Your task to perform on an android device: turn notification dots off Image 0: 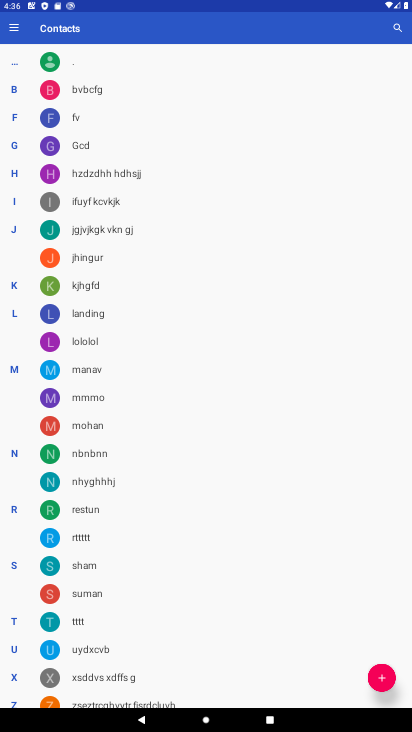
Step 0: press home button
Your task to perform on an android device: turn notification dots off Image 1: 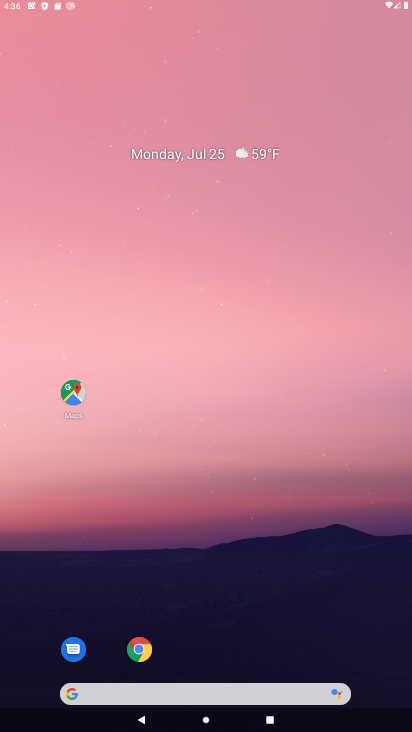
Step 1: drag from (385, 381) to (241, 352)
Your task to perform on an android device: turn notification dots off Image 2: 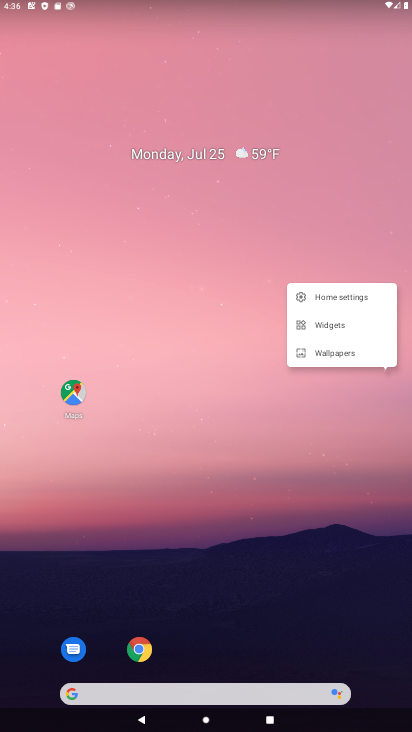
Step 2: click (266, 527)
Your task to perform on an android device: turn notification dots off Image 3: 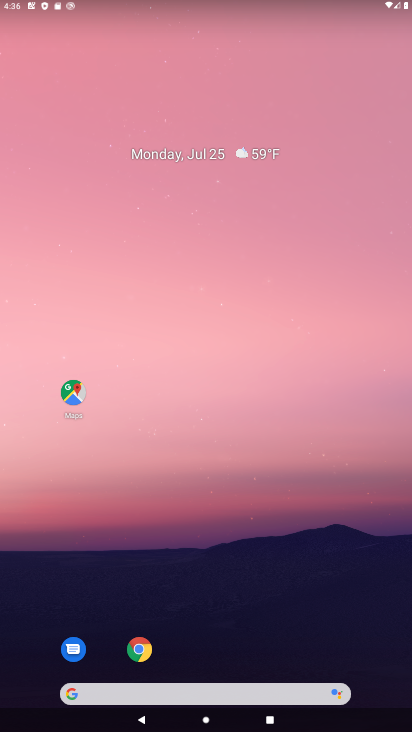
Step 3: drag from (236, 618) to (409, 198)
Your task to perform on an android device: turn notification dots off Image 4: 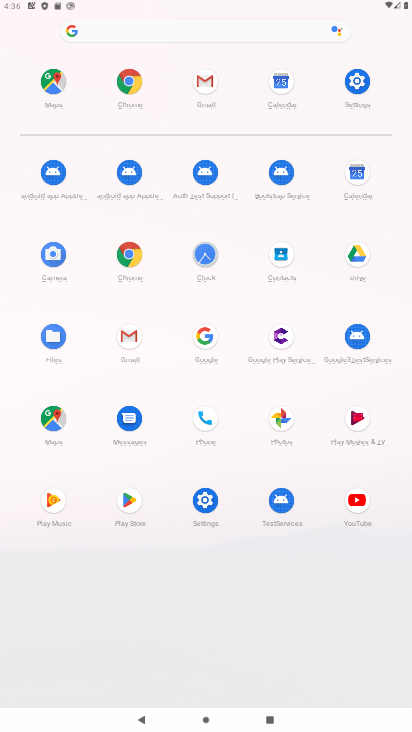
Step 4: click (364, 88)
Your task to perform on an android device: turn notification dots off Image 5: 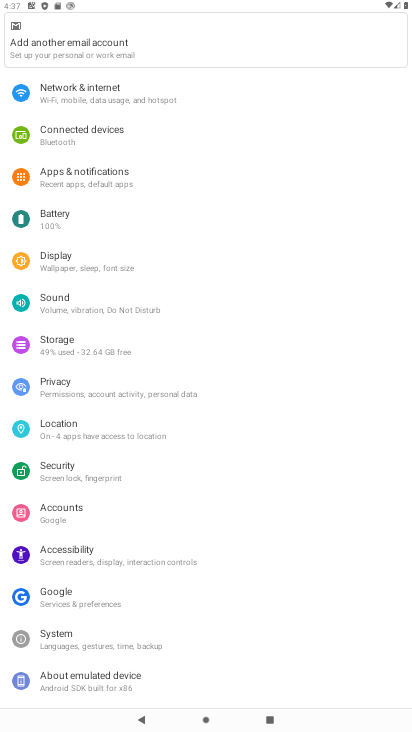
Step 5: click (96, 187)
Your task to perform on an android device: turn notification dots off Image 6: 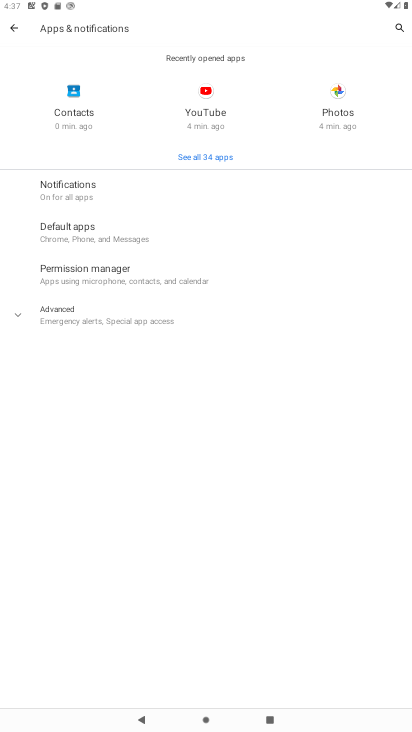
Step 6: click (86, 194)
Your task to perform on an android device: turn notification dots off Image 7: 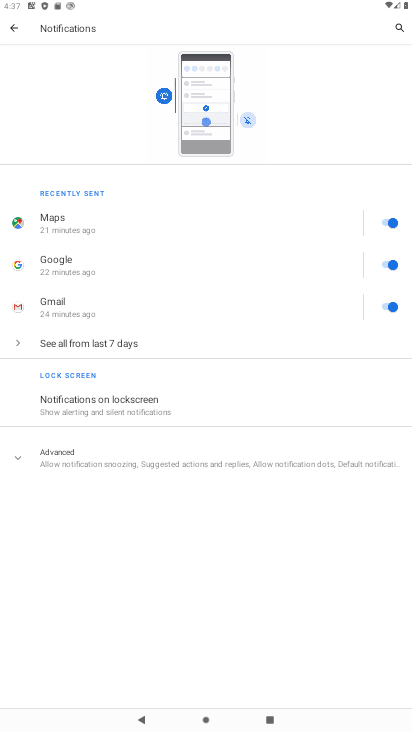
Step 7: click (90, 409)
Your task to perform on an android device: turn notification dots off Image 8: 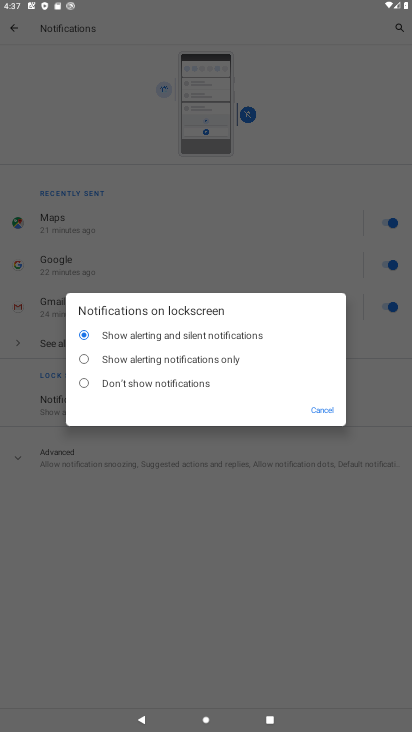
Step 8: click (318, 409)
Your task to perform on an android device: turn notification dots off Image 9: 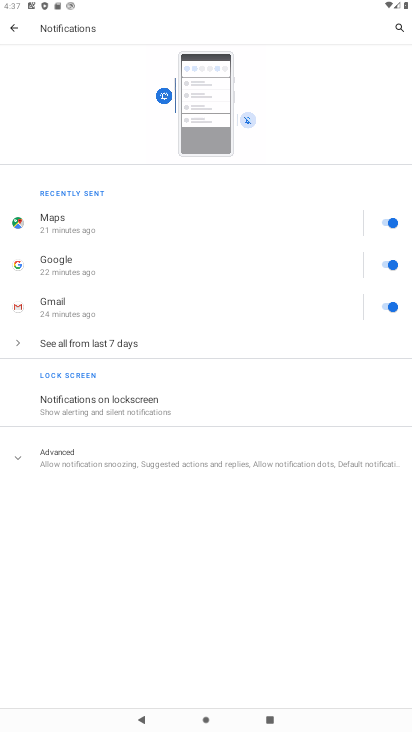
Step 9: click (74, 459)
Your task to perform on an android device: turn notification dots off Image 10: 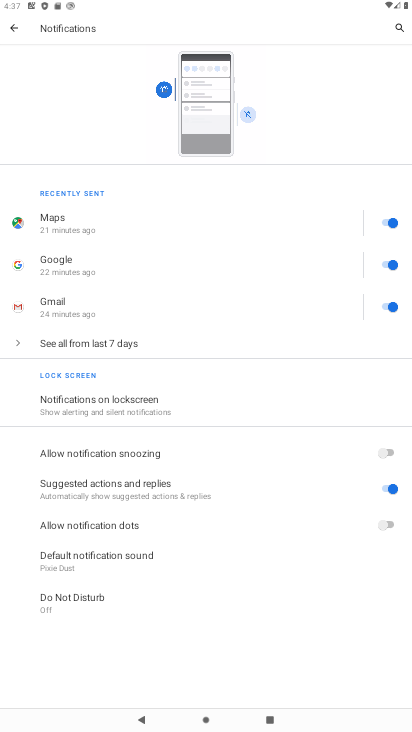
Step 10: task complete